Your task to perform on an android device: toggle priority inbox in the gmail app Image 0: 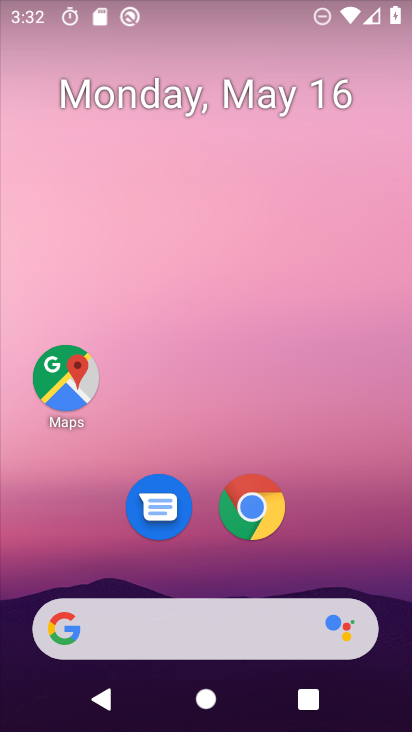
Step 0: drag from (331, 520) to (262, 0)
Your task to perform on an android device: toggle priority inbox in the gmail app Image 1: 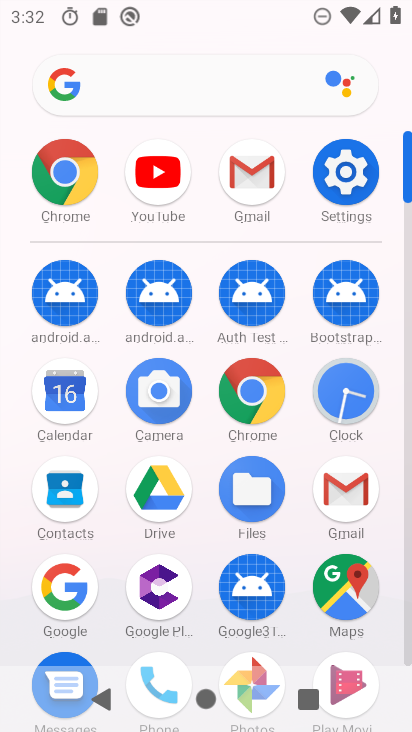
Step 1: click (243, 181)
Your task to perform on an android device: toggle priority inbox in the gmail app Image 2: 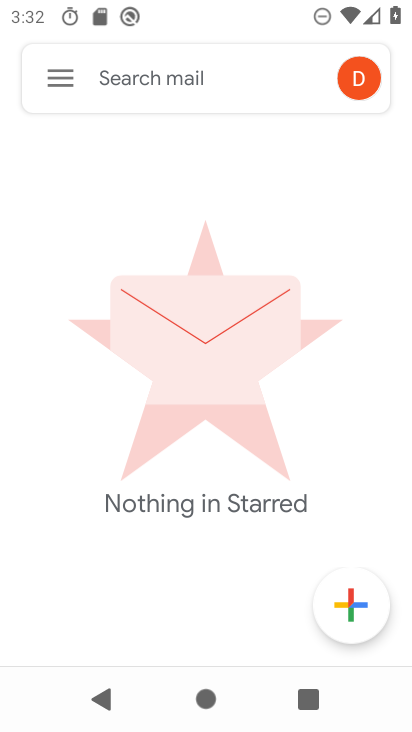
Step 2: click (46, 87)
Your task to perform on an android device: toggle priority inbox in the gmail app Image 3: 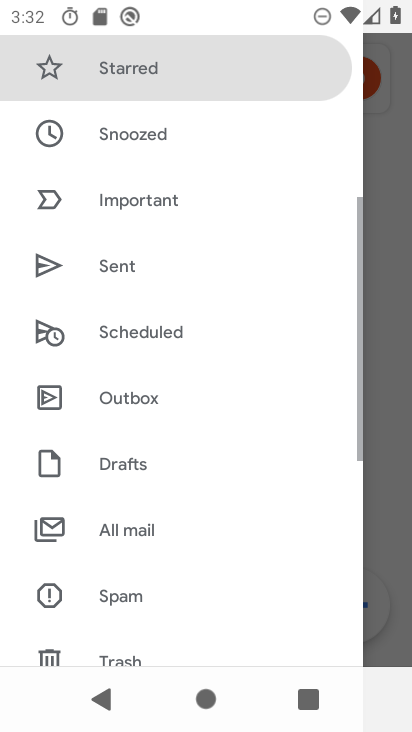
Step 3: drag from (167, 558) to (156, 134)
Your task to perform on an android device: toggle priority inbox in the gmail app Image 4: 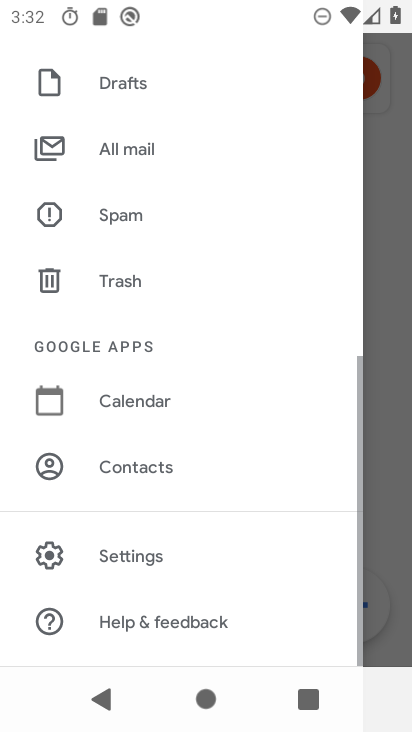
Step 4: drag from (178, 591) to (177, 240)
Your task to perform on an android device: toggle priority inbox in the gmail app Image 5: 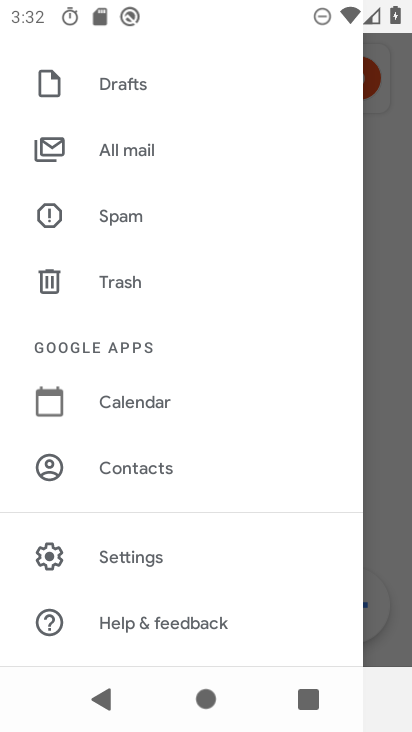
Step 5: click (100, 553)
Your task to perform on an android device: toggle priority inbox in the gmail app Image 6: 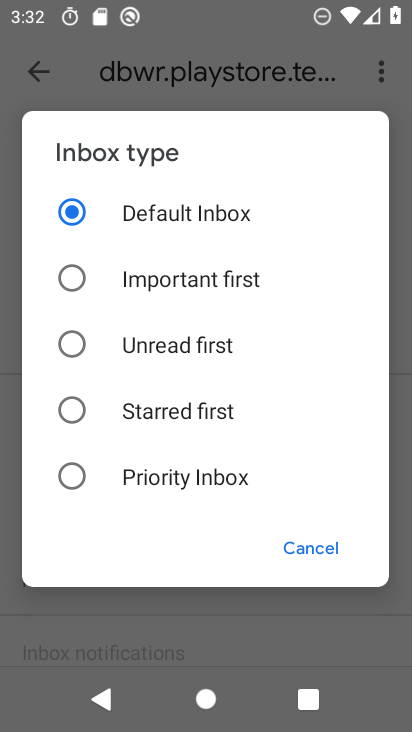
Step 6: click (149, 473)
Your task to perform on an android device: toggle priority inbox in the gmail app Image 7: 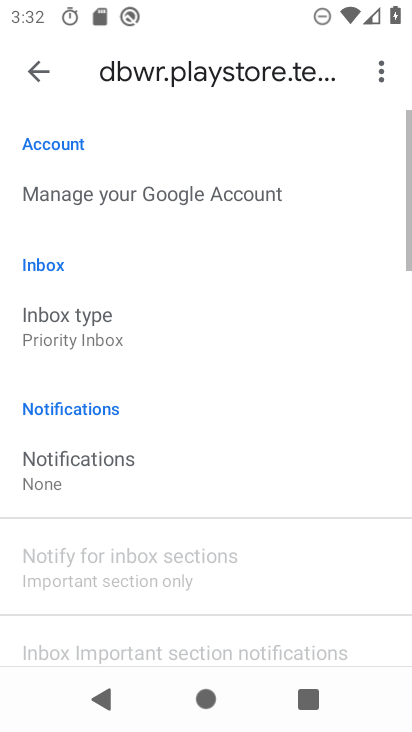
Step 7: task complete